Your task to perform on an android device: turn off smart reply in the gmail app Image 0: 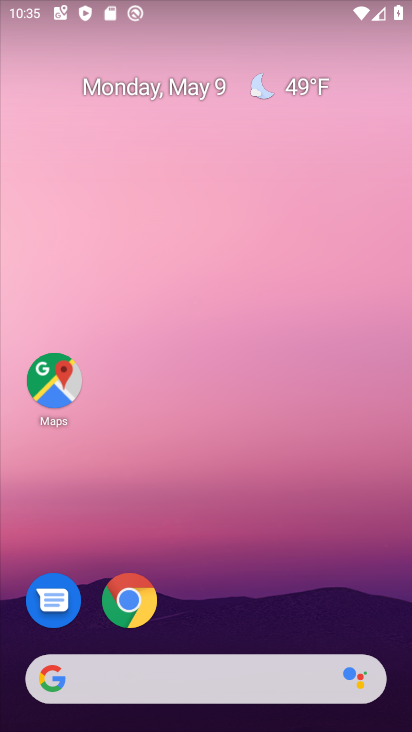
Step 0: drag from (309, 575) to (299, 192)
Your task to perform on an android device: turn off smart reply in the gmail app Image 1: 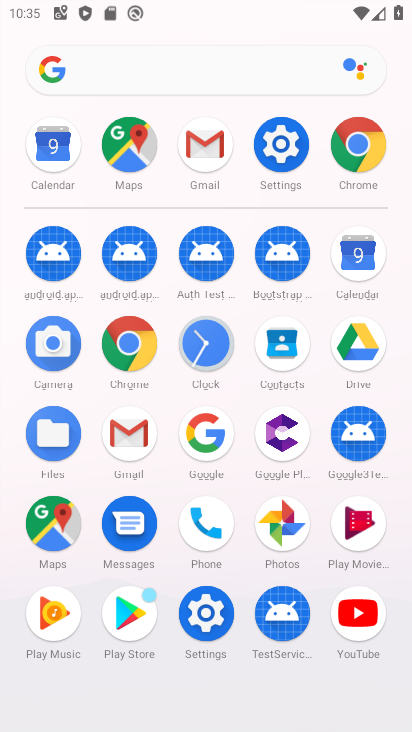
Step 1: click (123, 440)
Your task to perform on an android device: turn off smart reply in the gmail app Image 2: 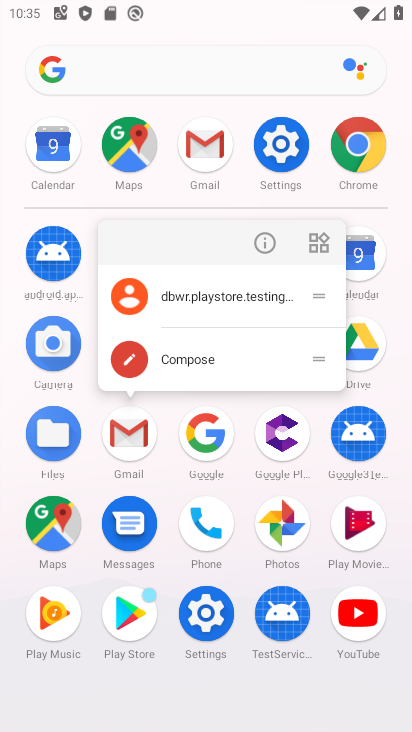
Step 2: click (125, 454)
Your task to perform on an android device: turn off smart reply in the gmail app Image 3: 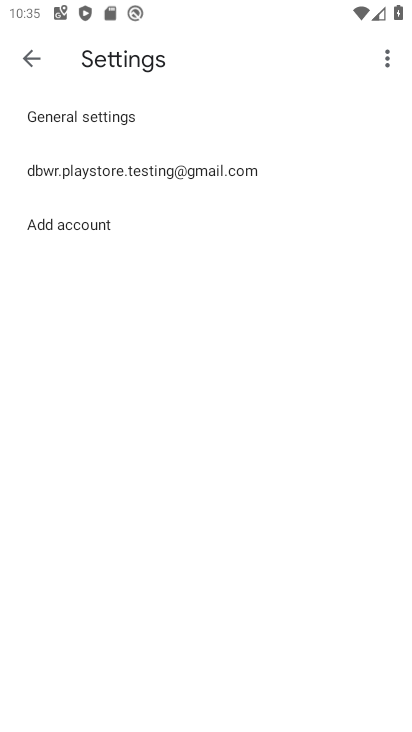
Step 3: click (161, 172)
Your task to perform on an android device: turn off smart reply in the gmail app Image 4: 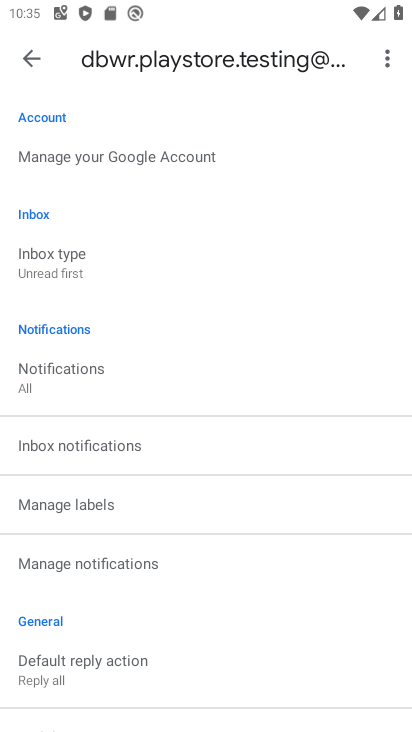
Step 4: drag from (234, 602) to (232, 391)
Your task to perform on an android device: turn off smart reply in the gmail app Image 5: 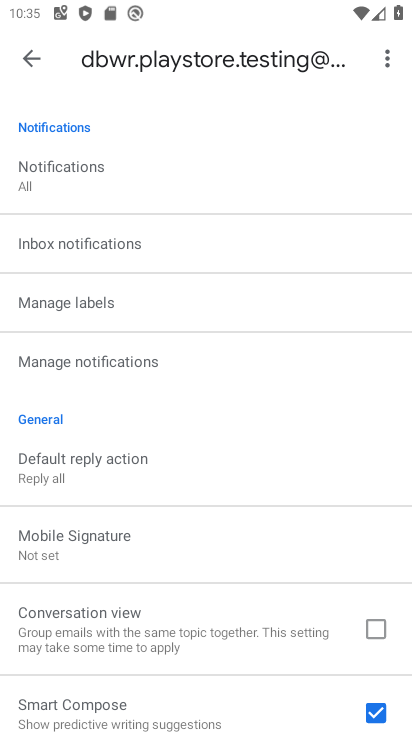
Step 5: drag from (229, 548) to (226, 397)
Your task to perform on an android device: turn off smart reply in the gmail app Image 6: 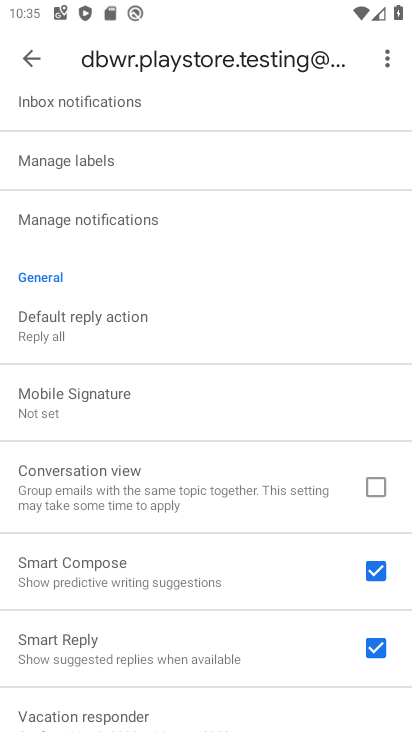
Step 6: click (381, 657)
Your task to perform on an android device: turn off smart reply in the gmail app Image 7: 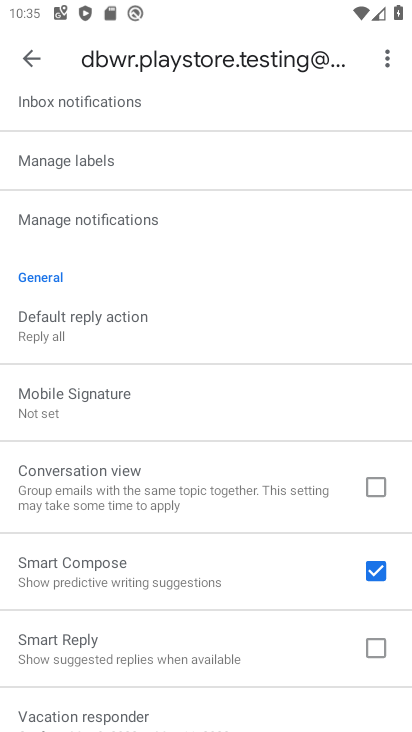
Step 7: task complete